Your task to perform on an android device: set default search engine in the chrome app Image 0: 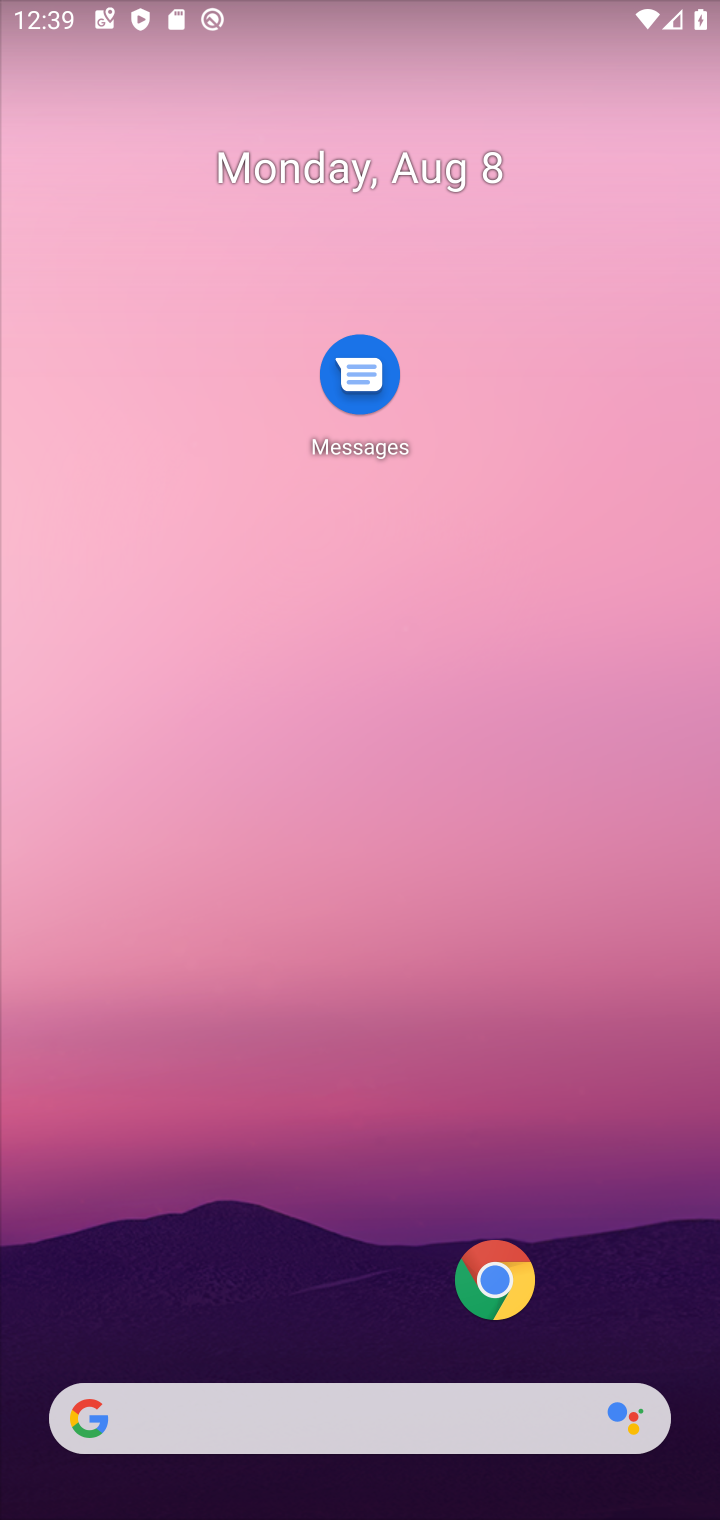
Step 0: click (515, 1267)
Your task to perform on an android device: set default search engine in the chrome app Image 1: 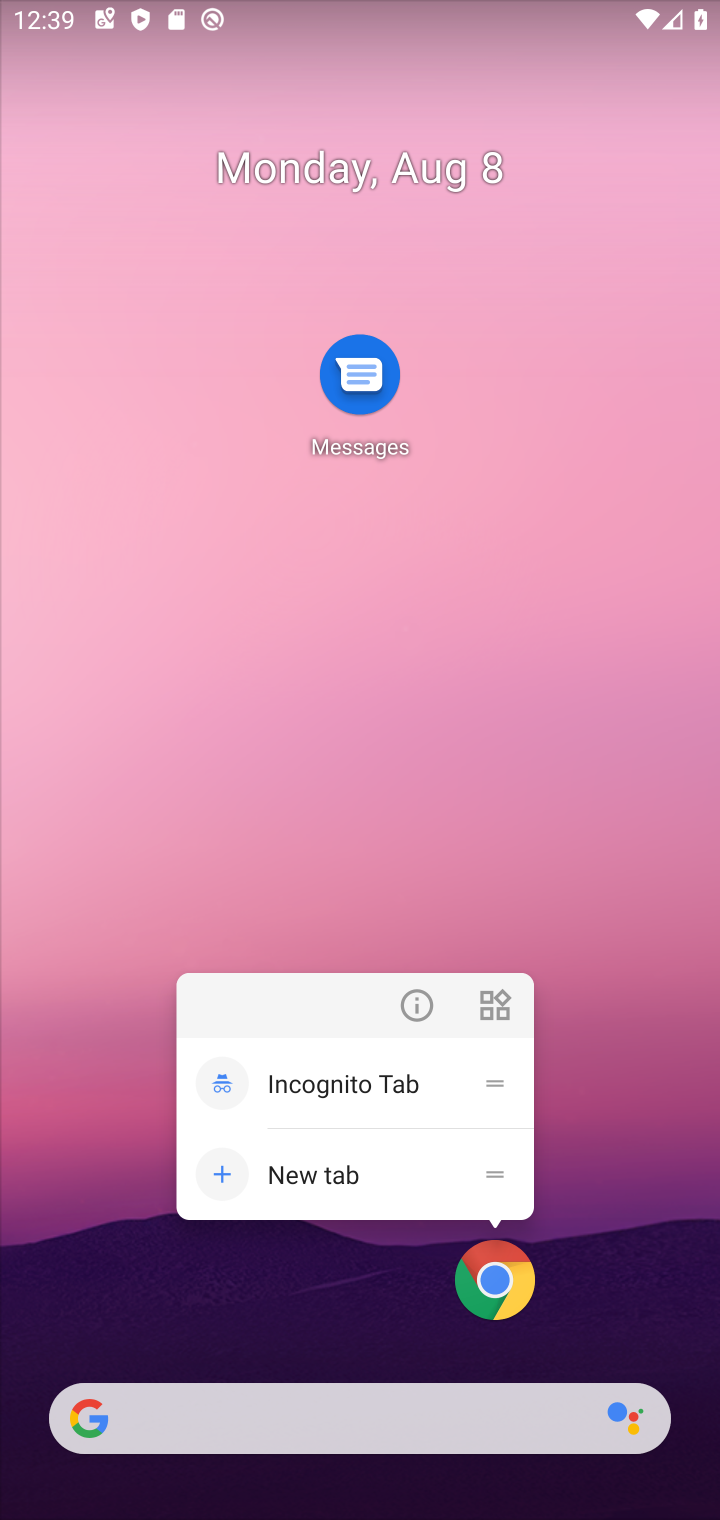
Step 1: click (482, 1275)
Your task to perform on an android device: set default search engine in the chrome app Image 2: 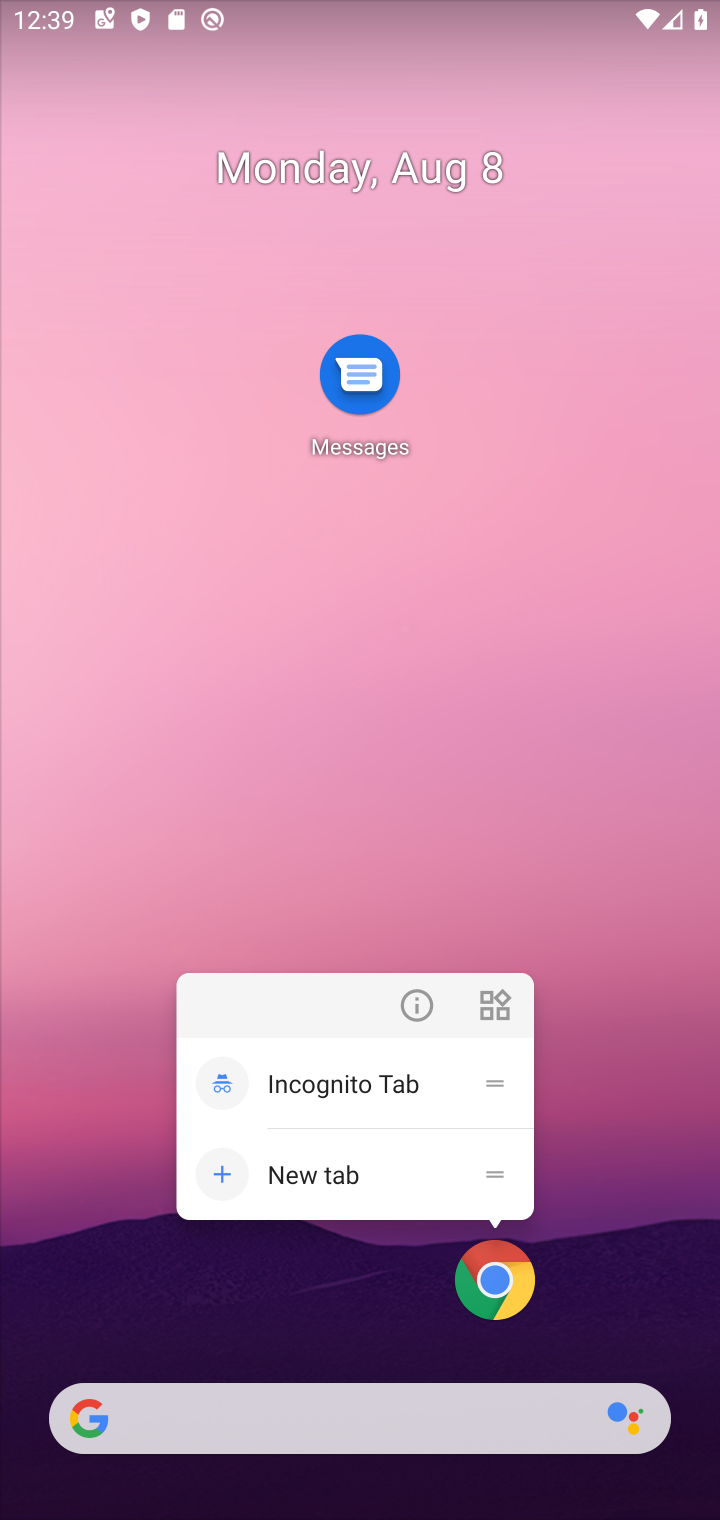
Step 2: click (486, 1277)
Your task to perform on an android device: set default search engine in the chrome app Image 3: 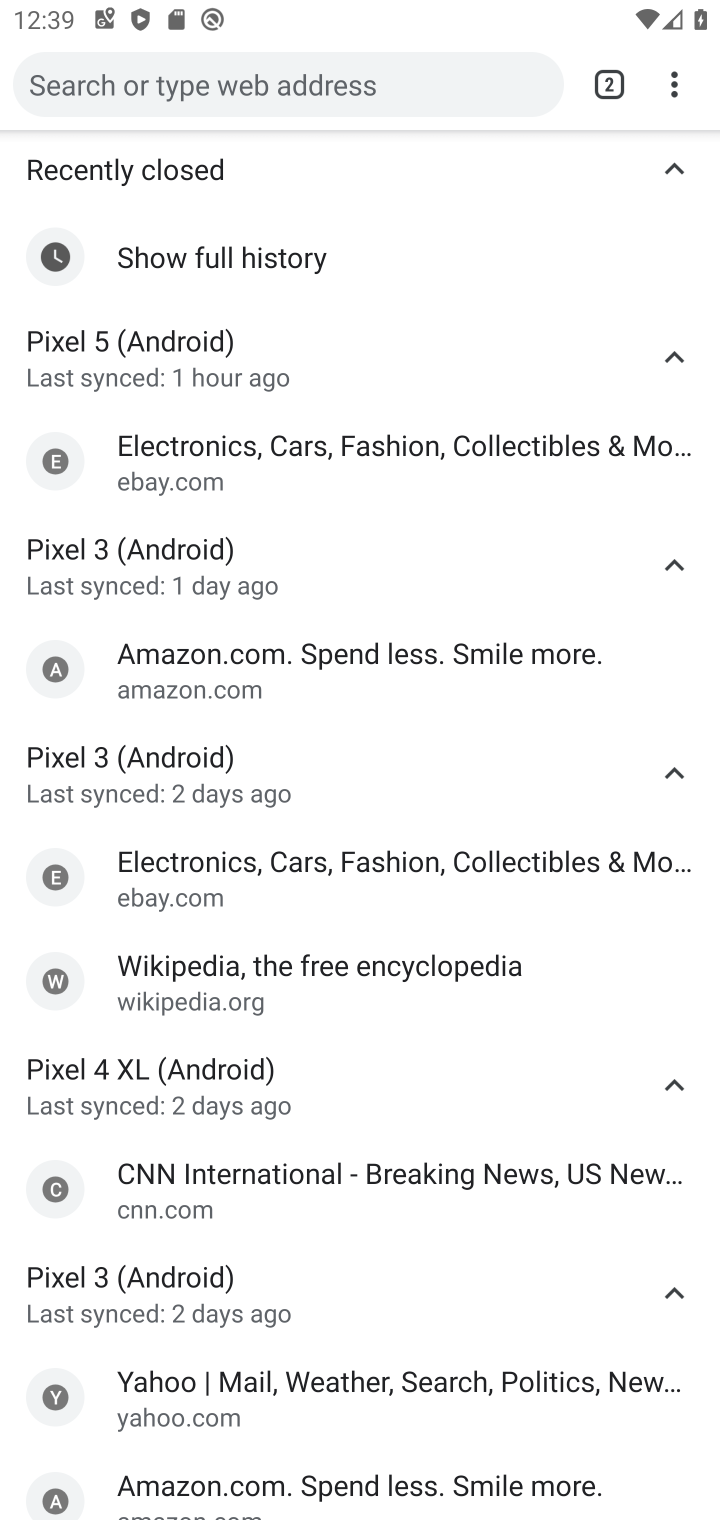
Step 3: drag from (674, 67) to (420, 721)
Your task to perform on an android device: set default search engine in the chrome app Image 4: 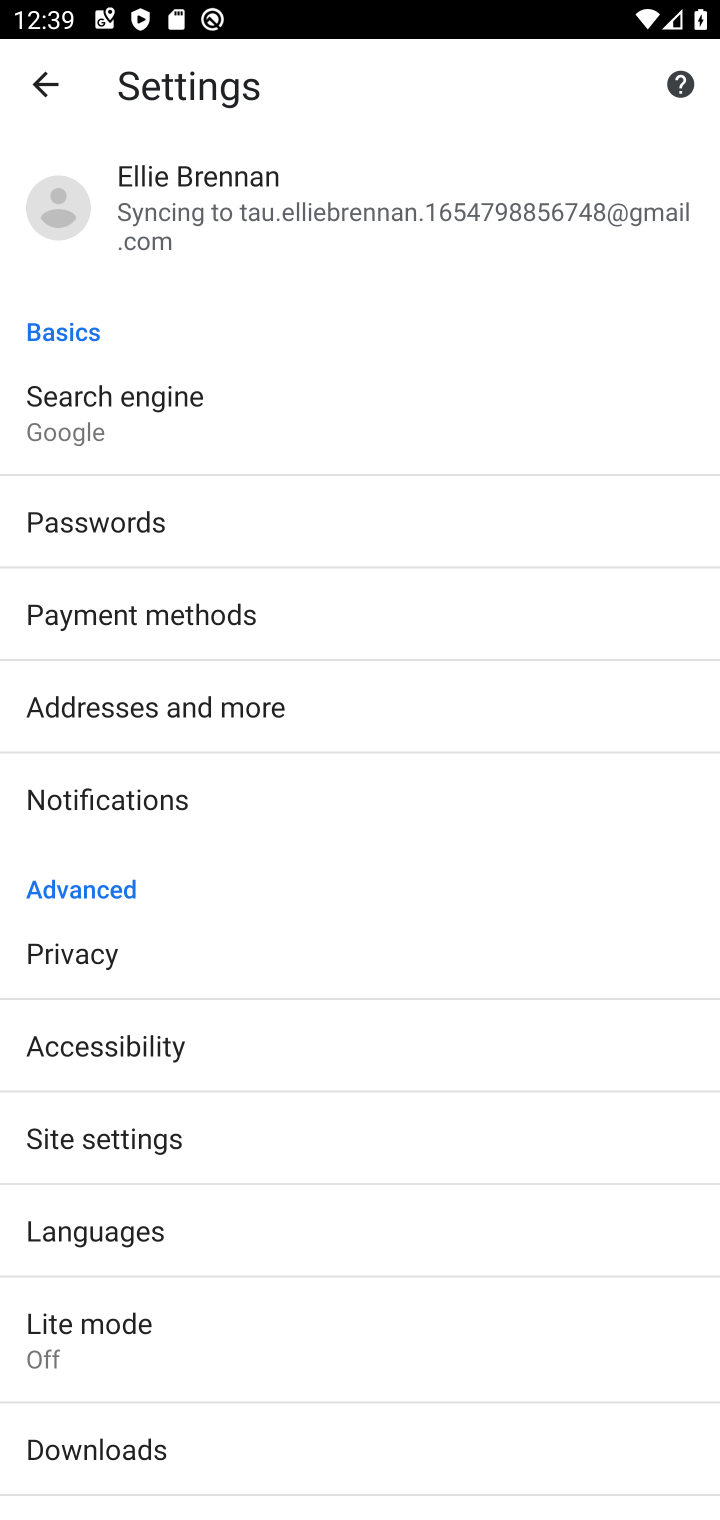
Step 4: click (148, 419)
Your task to perform on an android device: set default search engine in the chrome app Image 5: 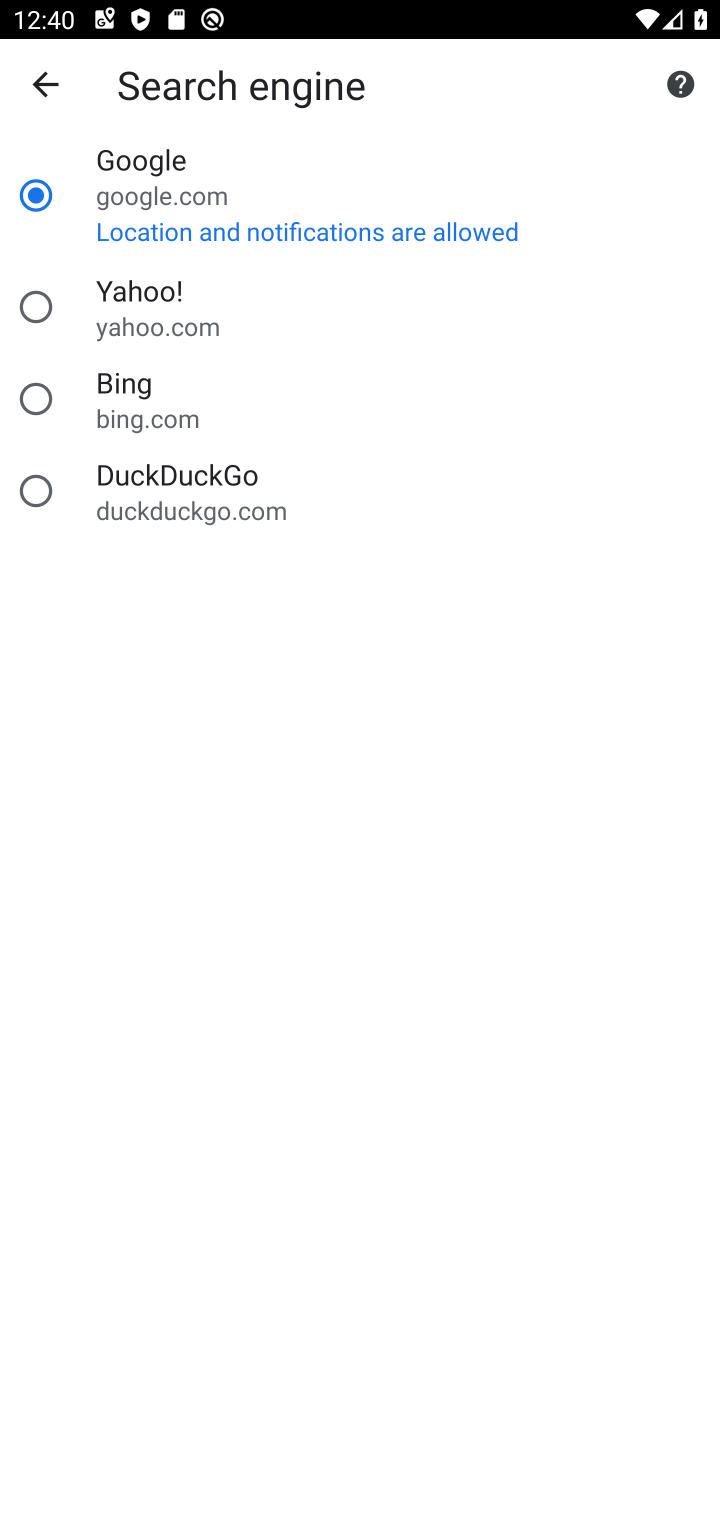
Step 5: click (171, 308)
Your task to perform on an android device: set default search engine in the chrome app Image 6: 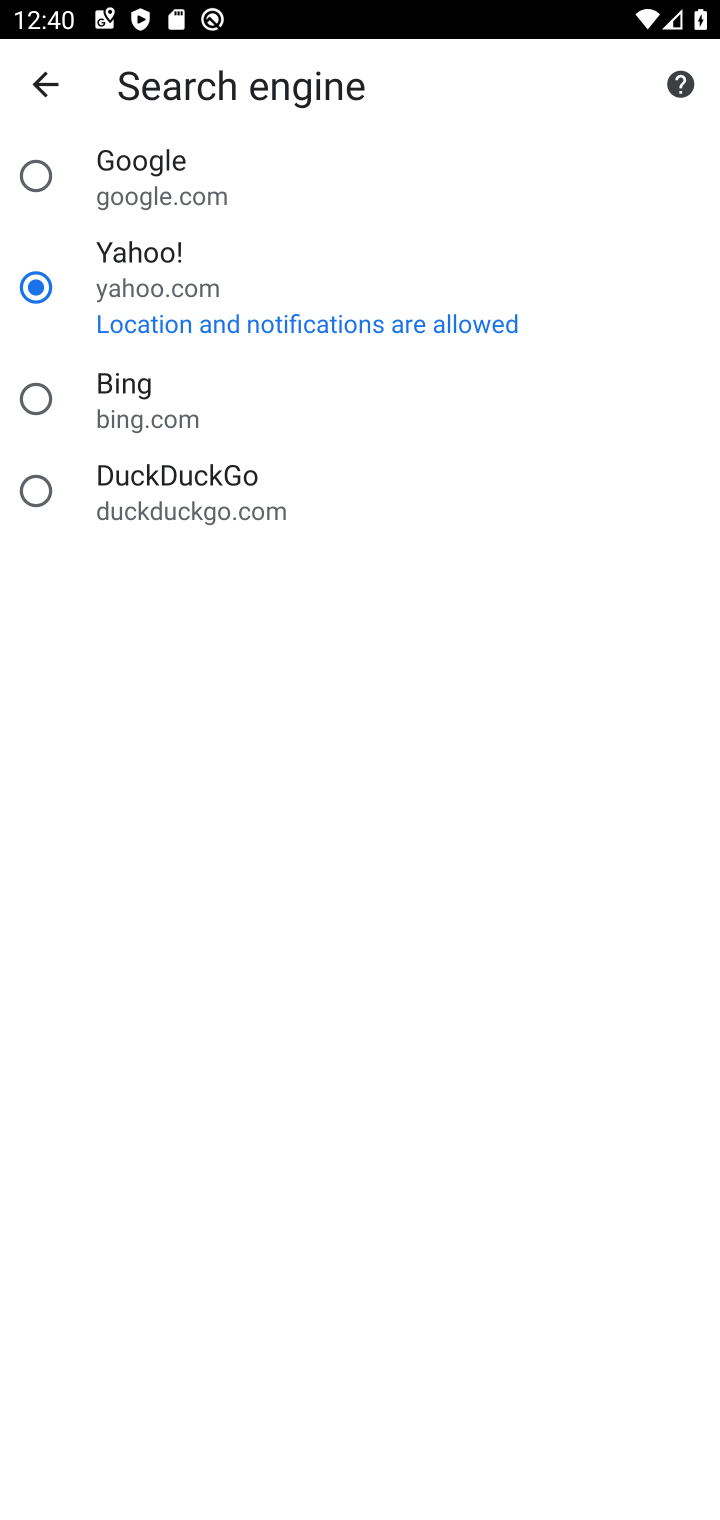
Step 6: task complete